Your task to perform on an android device: Go to wifi settings Image 0: 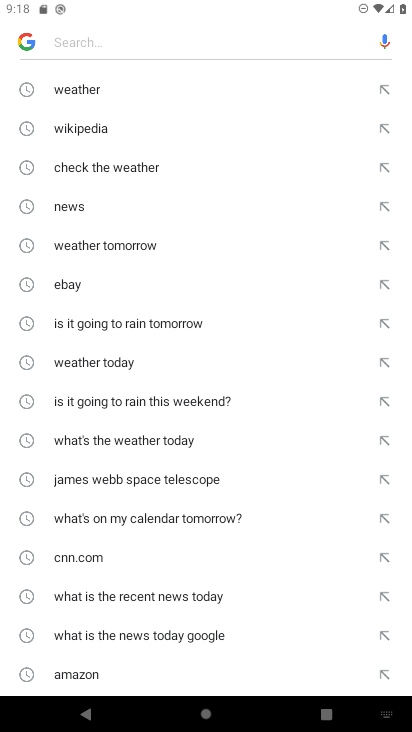
Step 0: press home button
Your task to perform on an android device: Go to wifi settings Image 1: 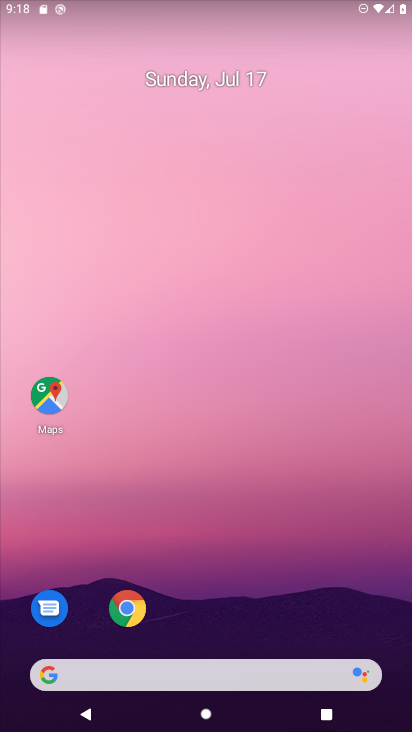
Step 1: drag from (184, 682) to (243, 237)
Your task to perform on an android device: Go to wifi settings Image 2: 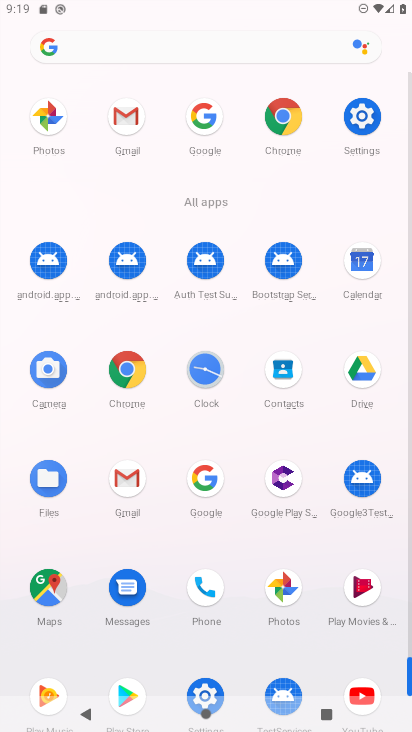
Step 2: click (362, 116)
Your task to perform on an android device: Go to wifi settings Image 3: 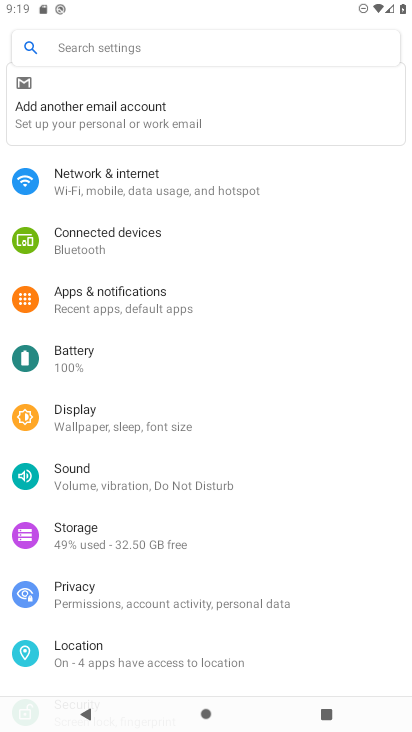
Step 3: click (128, 186)
Your task to perform on an android device: Go to wifi settings Image 4: 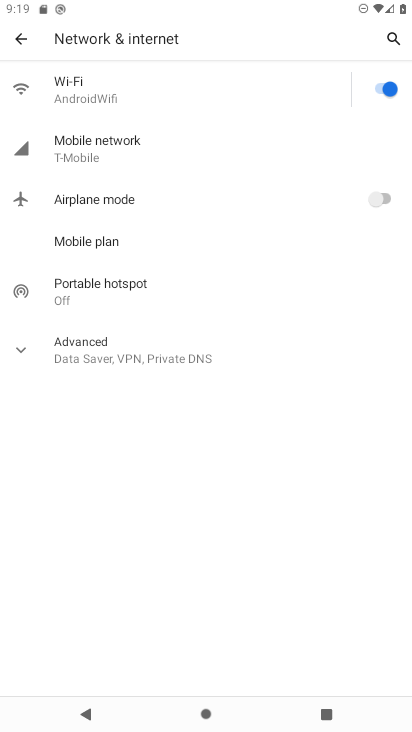
Step 4: click (94, 100)
Your task to perform on an android device: Go to wifi settings Image 5: 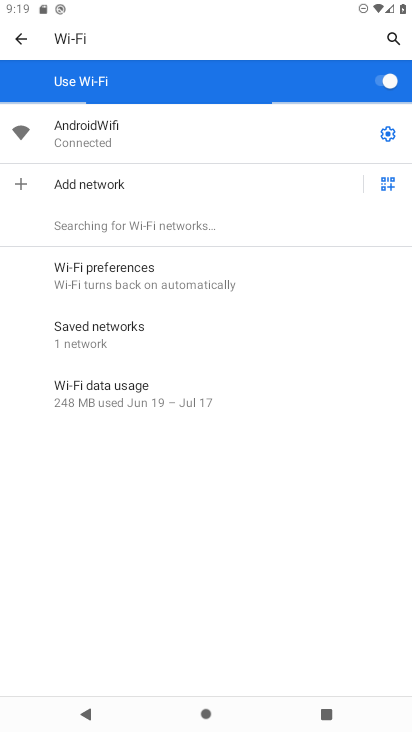
Step 5: click (387, 143)
Your task to perform on an android device: Go to wifi settings Image 6: 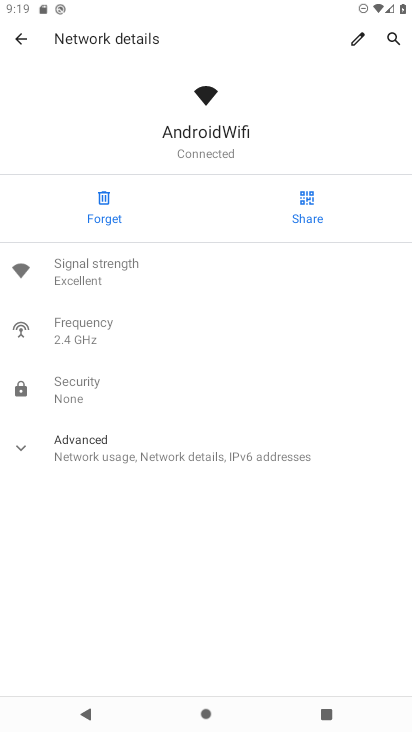
Step 6: task complete